Your task to perform on an android device: turn on showing notifications on the lock screen Image 0: 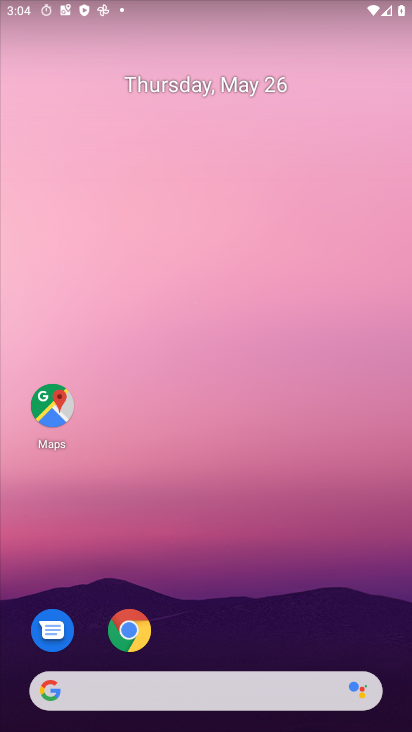
Step 0: drag from (267, 494) to (224, 206)
Your task to perform on an android device: turn on showing notifications on the lock screen Image 1: 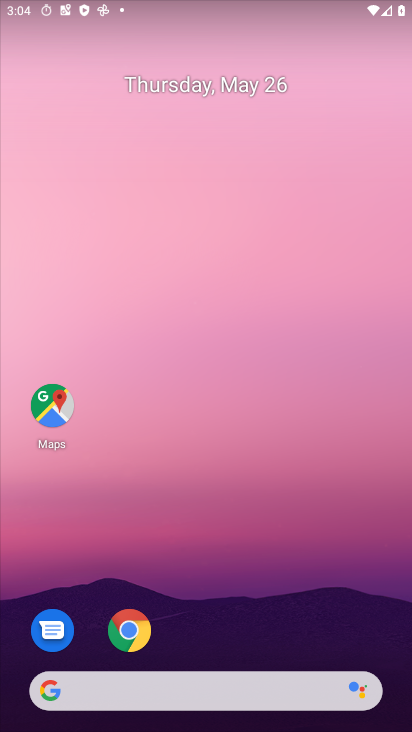
Step 1: drag from (386, 656) to (246, 174)
Your task to perform on an android device: turn on showing notifications on the lock screen Image 2: 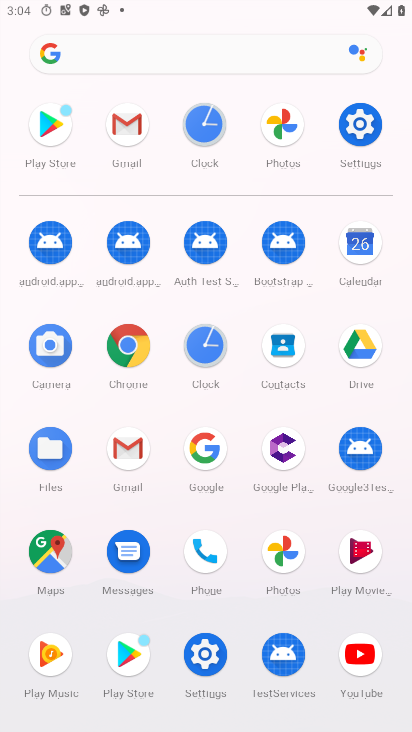
Step 2: click (341, 123)
Your task to perform on an android device: turn on showing notifications on the lock screen Image 3: 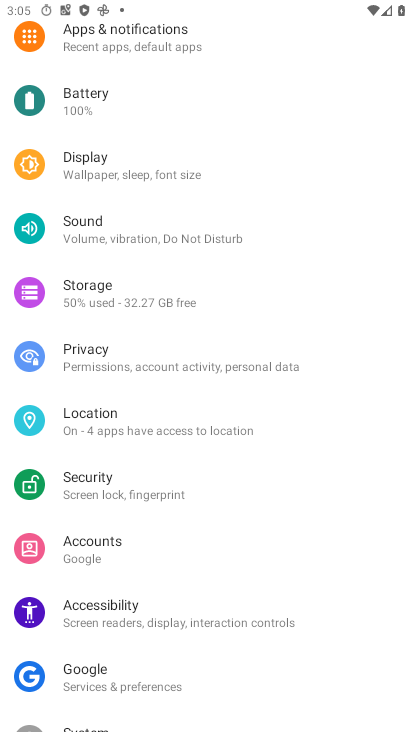
Step 3: click (169, 33)
Your task to perform on an android device: turn on showing notifications on the lock screen Image 4: 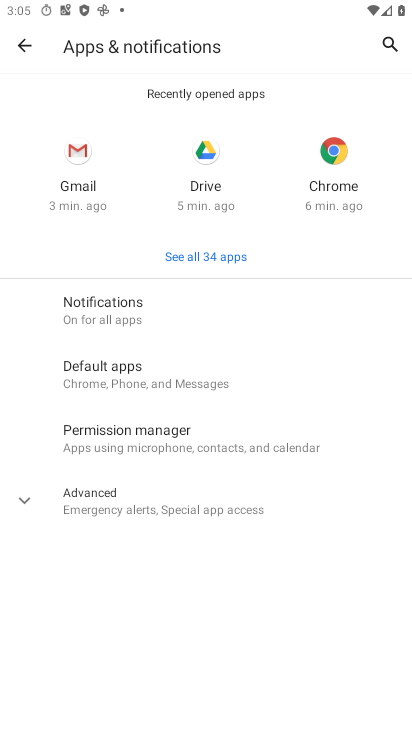
Step 4: click (170, 317)
Your task to perform on an android device: turn on showing notifications on the lock screen Image 5: 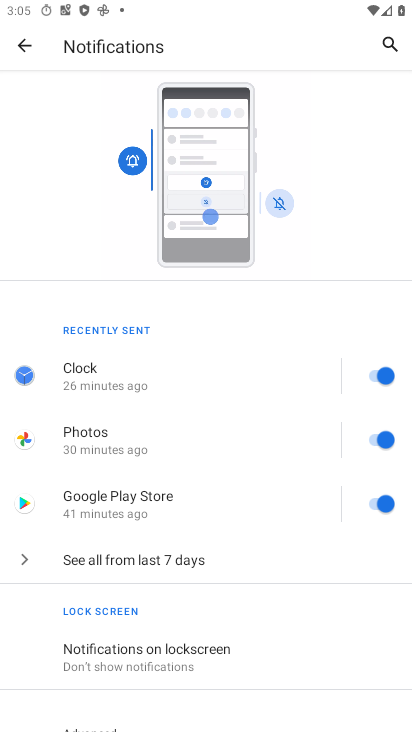
Step 5: click (260, 645)
Your task to perform on an android device: turn on showing notifications on the lock screen Image 6: 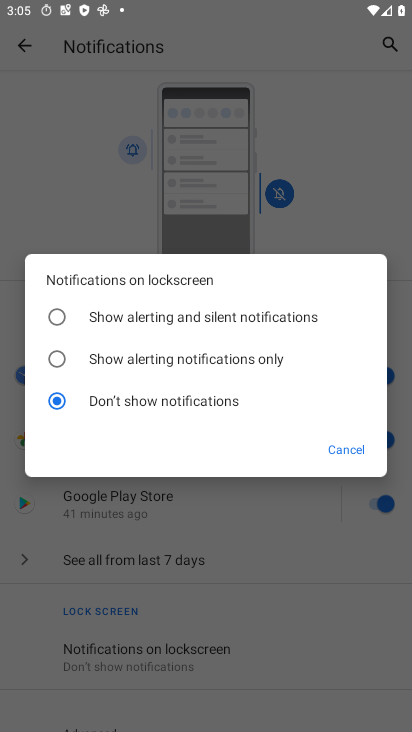
Step 6: click (194, 330)
Your task to perform on an android device: turn on showing notifications on the lock screen Image 7: 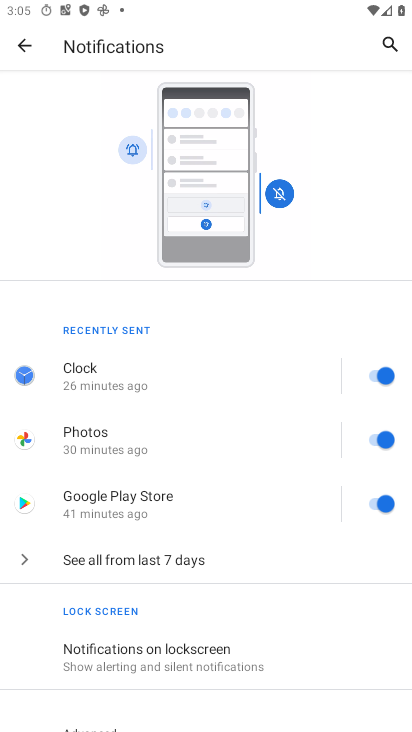
Step 7: task complete